Your task to perform on an android device: Open Wikipedia Image 0: 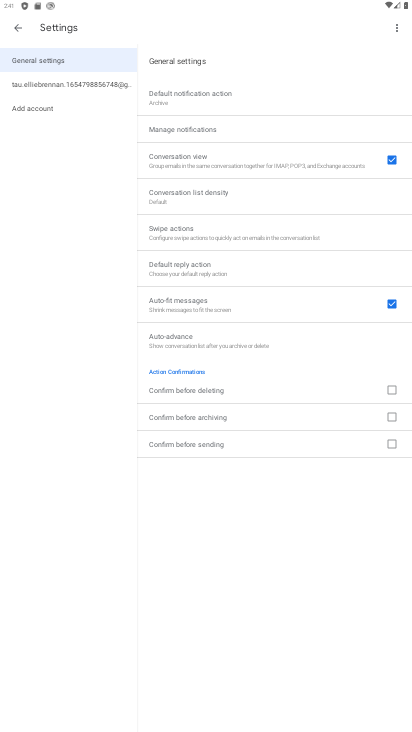
Step 0: press home button
Your task to perform on an android device: Open Wikipedia Image 1: 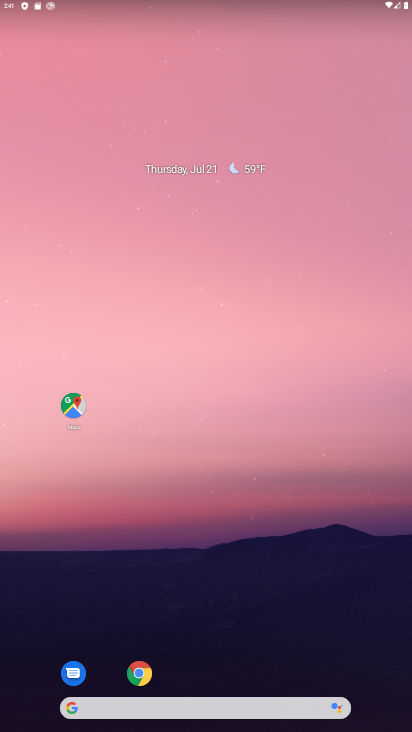
Step 1: click (140, 672)
Your task to perform on an android device: Open Wikipedia Image 2: 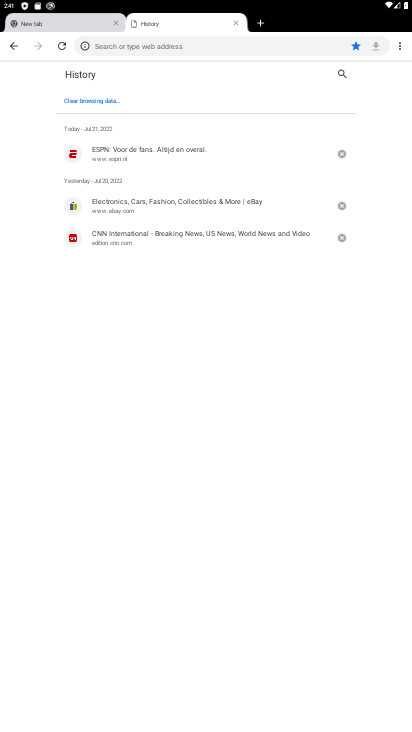
Step 2: click (131, 47)
Your task to perform on an android device: Open Wikipedia Image 3: 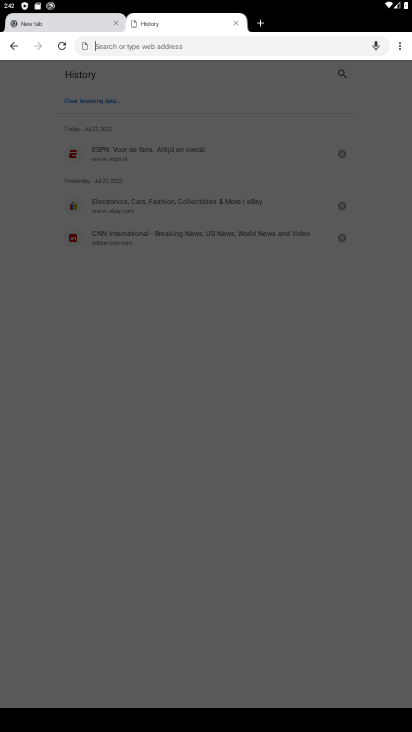
Step 3: type "wikipedia"
Your task to perform on an android device: Open Wikipedia Image 4: 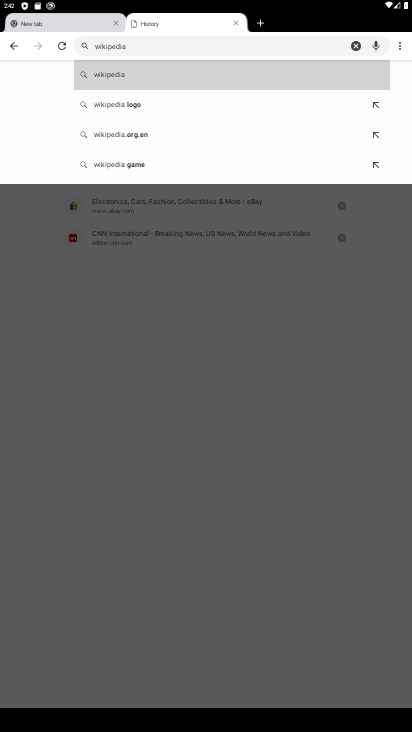
Step 4: click (113, 81)
Your task to perform on an android device: Open Wikipedia Image 5: 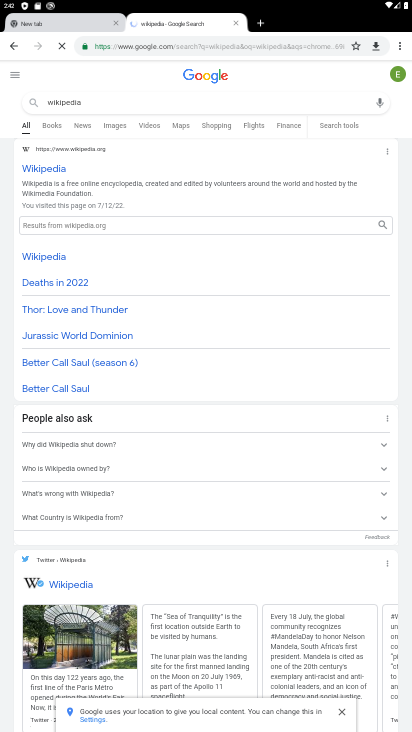
Step 5: click (40, 166)
Your task to perform on an android device: Open Wikipedia Image 6: 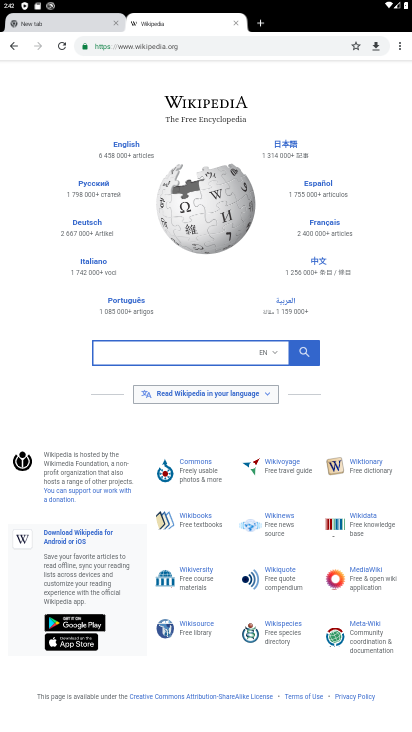
Step 6: task complete